Your task to perform on an android device: turn off notifications settings in the gmail app Image 0: 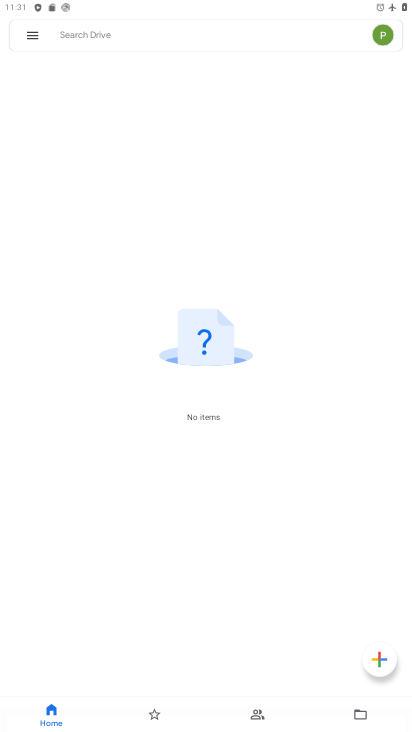
Step 0: press home button
Your task to perform on an android device: turn off notifications settings in the gmail app Image 1: 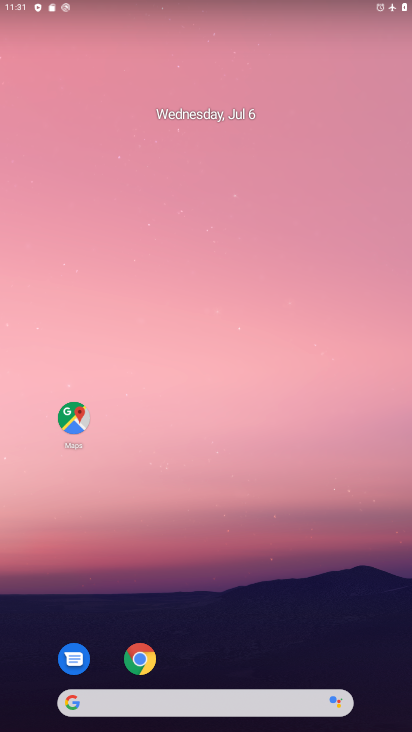
Step 1: click (75, 396)
Your task to perform on an android device: turn off notifications settings in the gmail app Image 2: 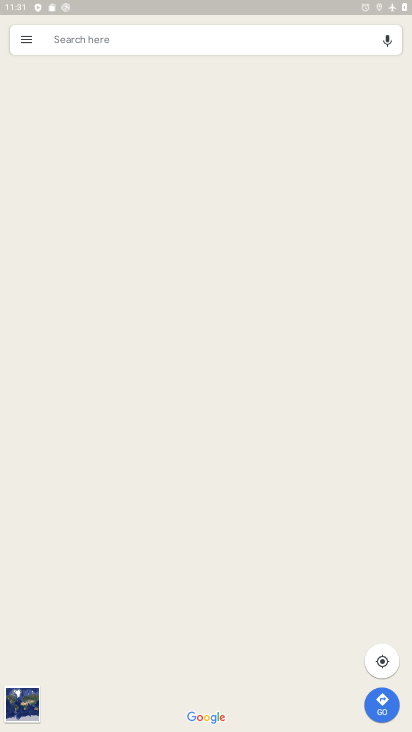
Step 2: press home button
Your task to perform on an android device: turn off notifications settings in the gmail app Image 3: 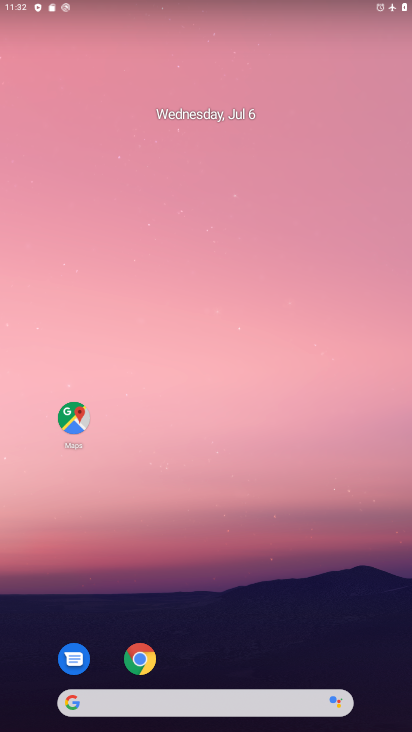
Step 3: drag from (235, 14) to (253, 633)
Your task to perform on an android device: turn off notifications settings in the gmail app Image 4: 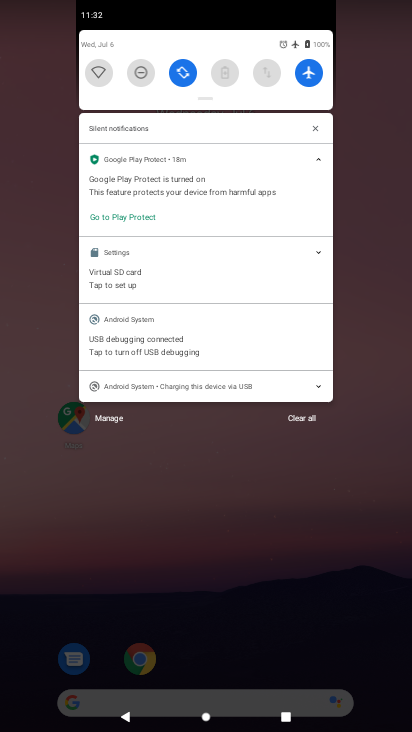
Step 4: drag from (194, 55) to (210, 551)
Your task to perform on an android device: turn off notifications settings in the gmail app Image 5: 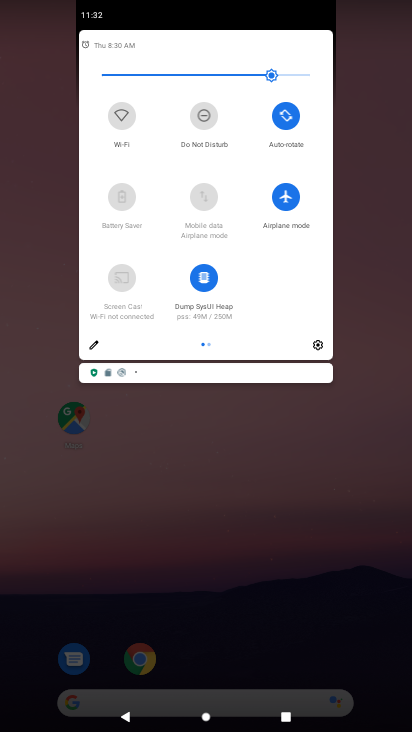
Step 5: click (320, 344)
Your task to perform on an android device: turn off notifications settings in the gmail app Image 6: 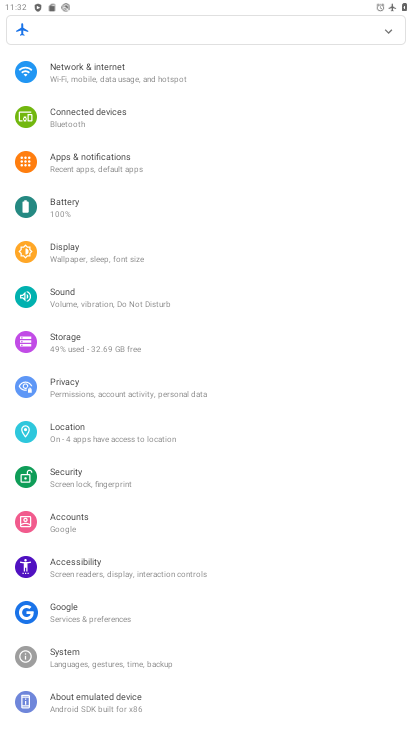
Step 6: click (92, 176)
Your task to perform on an android device: turn off notifications settings in the gmail app Image 7: 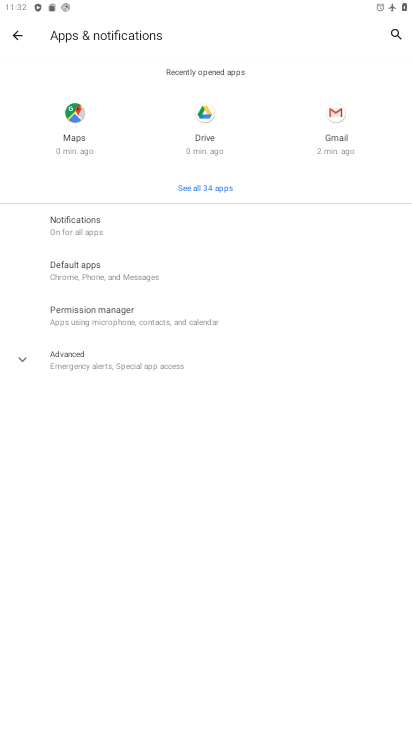
Step 7: click (122, 214)
Your task to perform on an android device: turn off notifications settings in the gmail app Image 8: 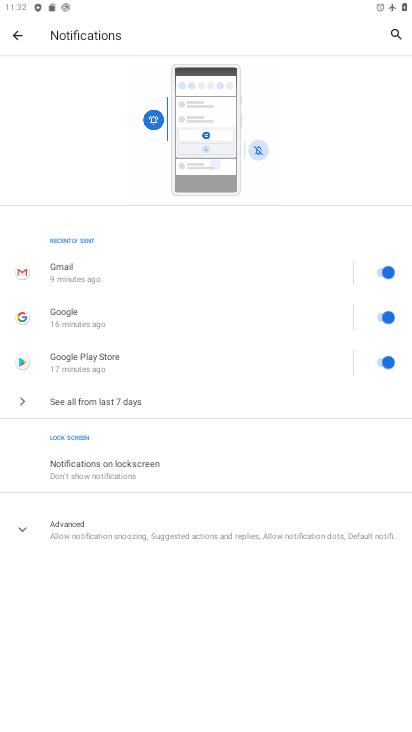
Step 8: click (94, 464)
Your task to perform on an android device: turn off notifications settings in the gmail app Image 9: 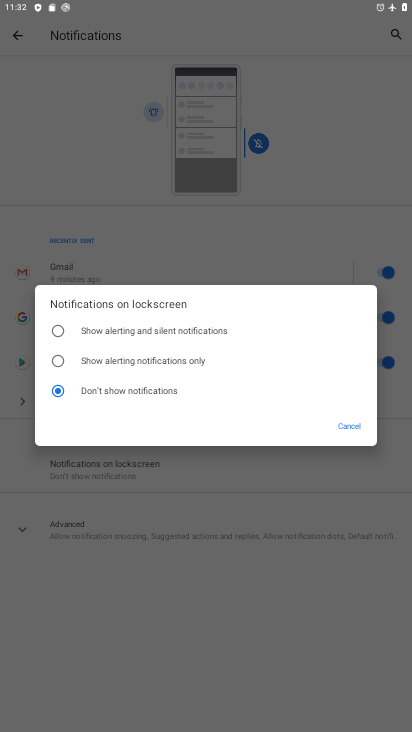
Step 9: task complete